Your task to perform on an android device: Show me popular videos on Youtube Image 0: 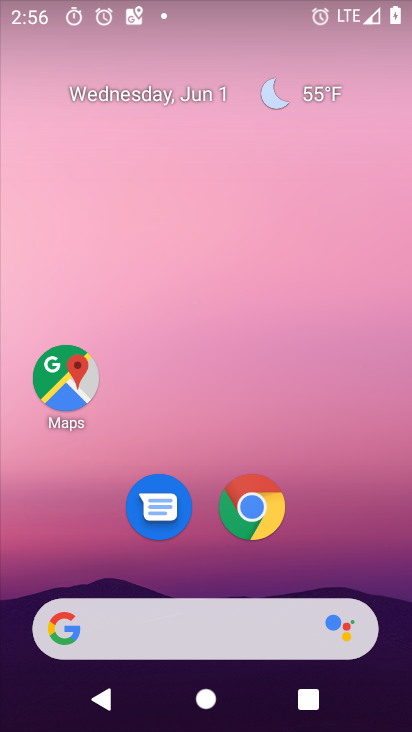
Step 0: drag from (328, 567) to (304, 0)
Your task to perform on an android device: Show me popular videos on Youtube Image 1: 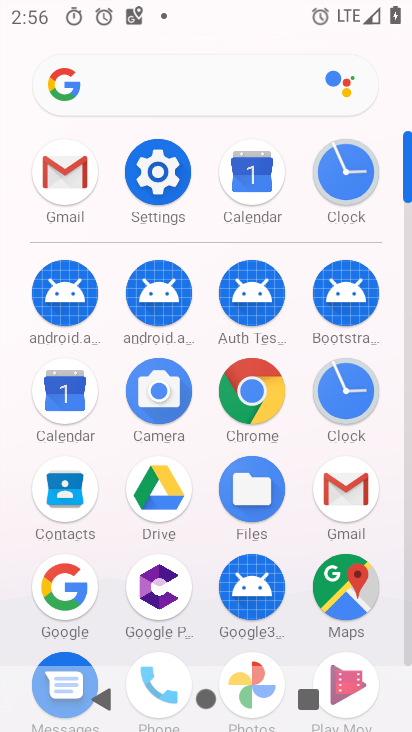
Step 1: click (407, 541)
Your task to perform on an android device: Show me popular videos on Youtube Image 2: 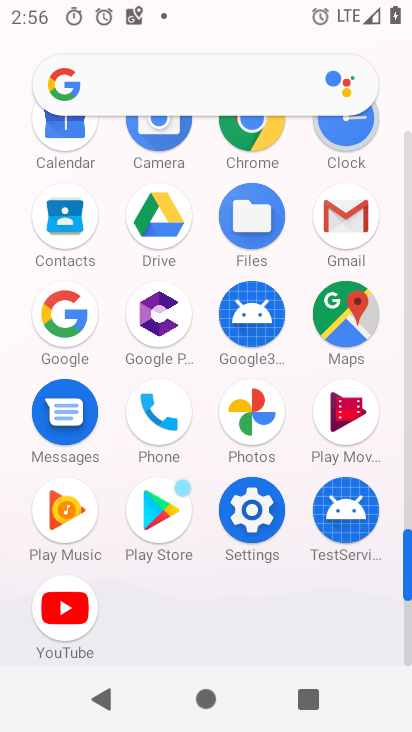
Step 2: click (57, 620)
Your task to perform on an android device: Show me popular videos on Youtube Image 3: 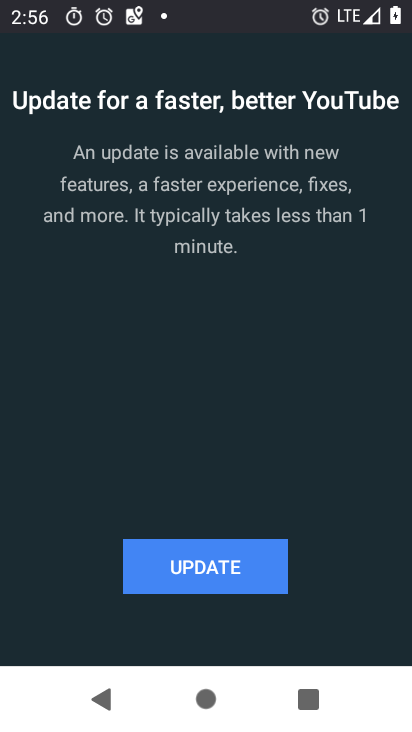
Step 3: click (213, 569)
Your task to perform on an android device: Show me popular videos on Youtube Image 4: 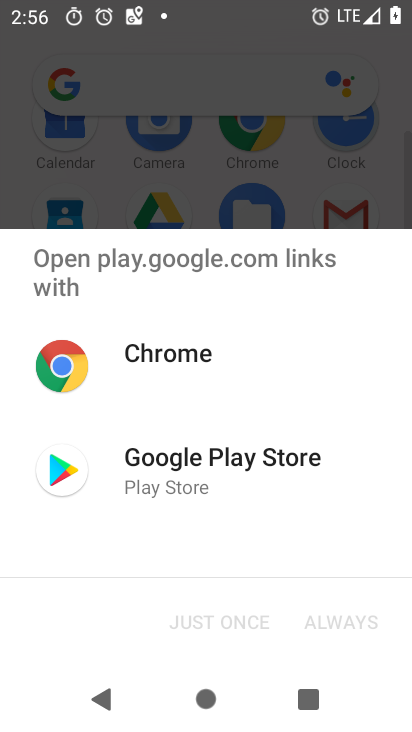
Step 4: click (149, 483)
Your task to perform on an android device: Show me popular videos on Youtube Image 5: 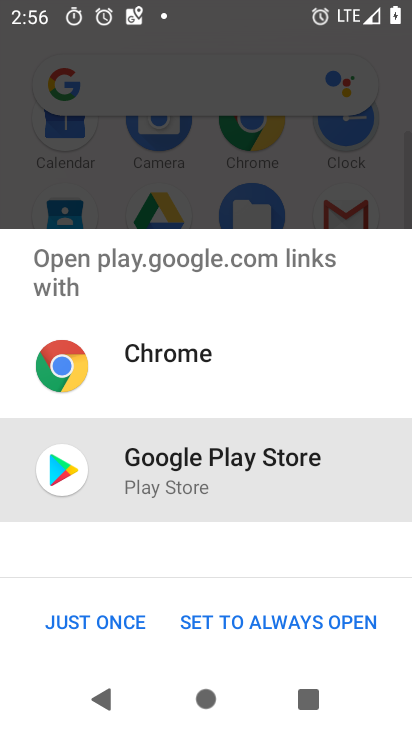
Step 5: click (83, 630)
Your task to perform on an android device: Show me popular videos on Youtube Image 6: 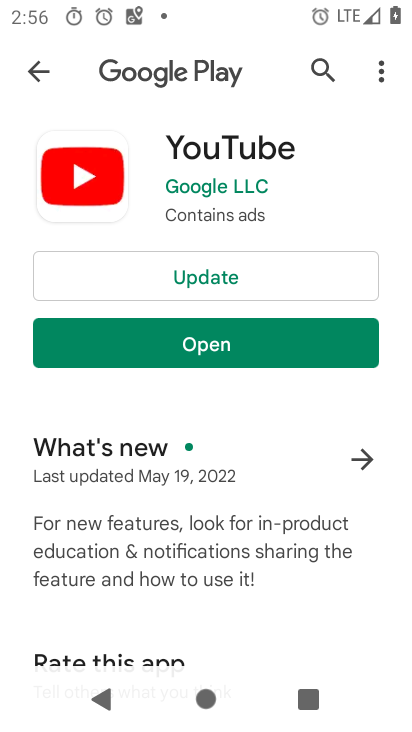
Step 6: click (197, 280)
Your task to perform on an android device: Show me popular videos on Youtube Image 7: 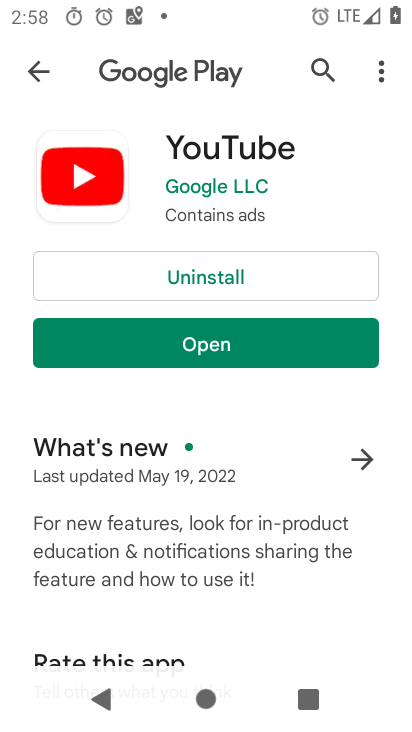
Step 7: click (219, 338)
Your task to perform on an android device: Show me popular videos on Youtube Image 8: 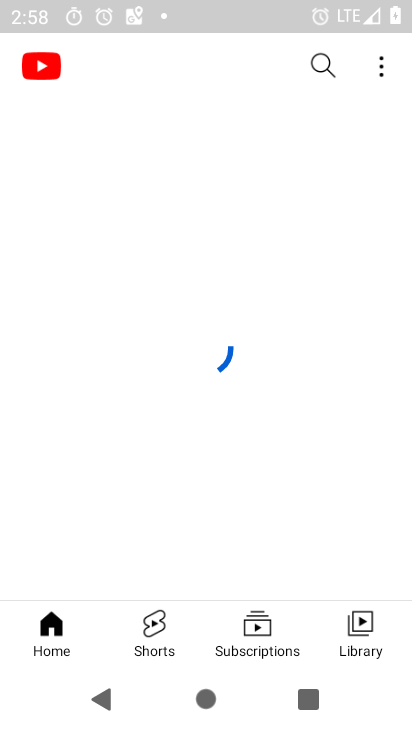
Step 8: click (44, 631)
Your task to perform on an android device: Show me popular videos on Youtube Image 9: 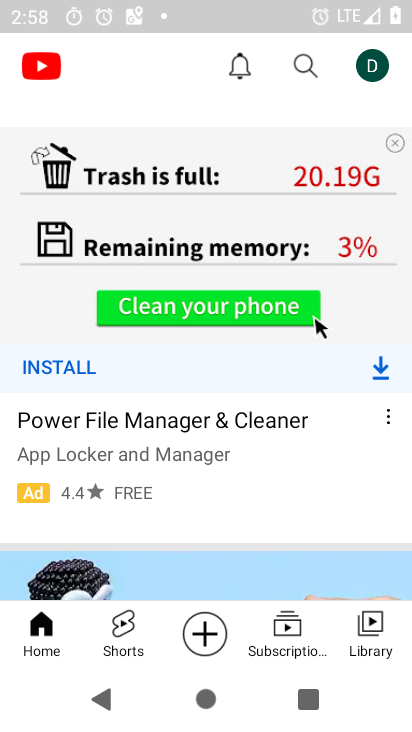
Step 9: task complete